Your task to perform on an android device: Open Google Maps Image 0: 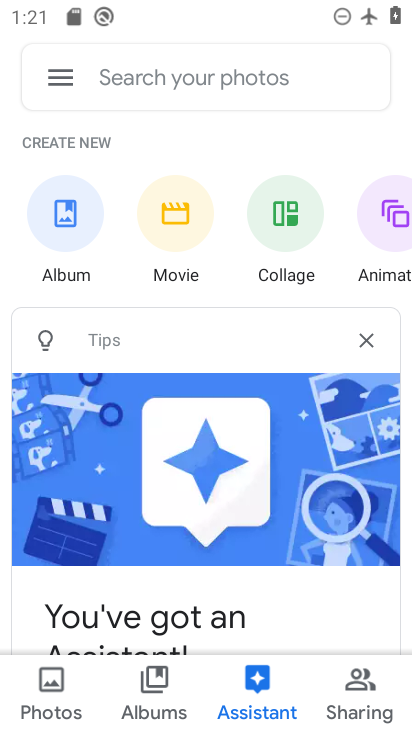
Step 0: press home button
Your task to perform on an android device: Open Google Maps Image 1: 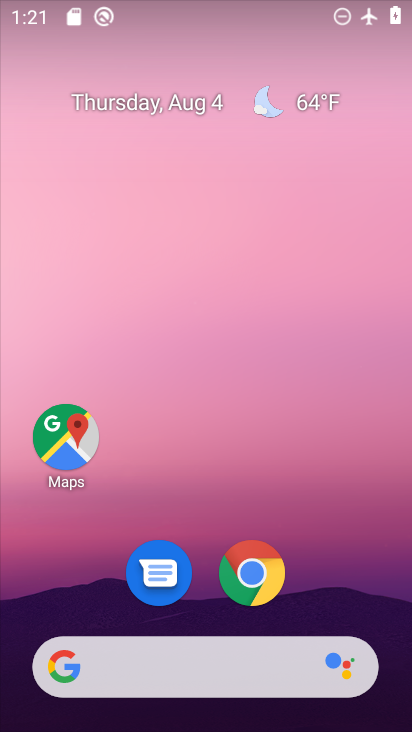
Step 1: drag from (346, 531) to (324, 137)
Your task to perform on an android device: Open Google Maps Image 2: 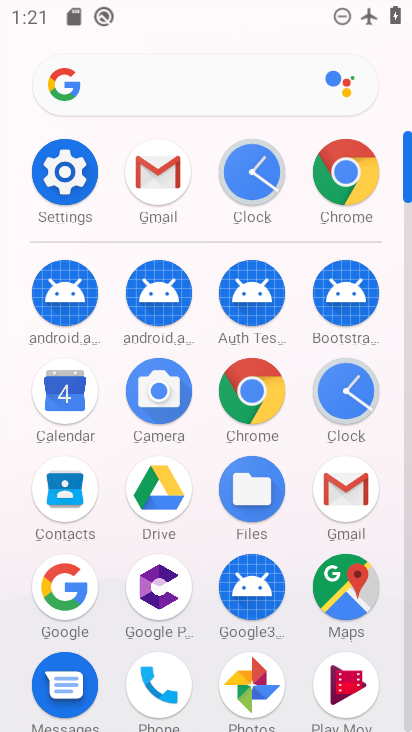
Step 2: click (353, 583)
Your task to perform on an android device: Open Google Maps Image 3: 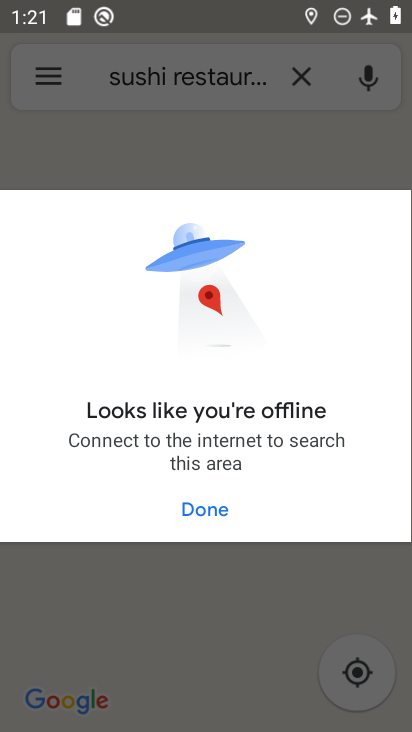
Step 3: task complete